Your task to perform on an android device: Search for Italian restaurants on Maps Image 0: 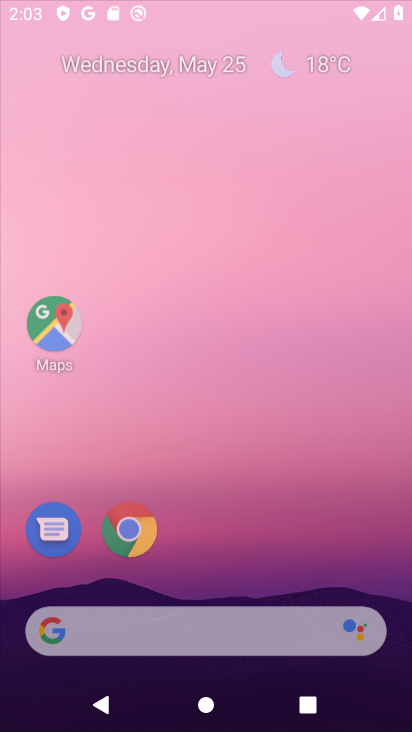
Step 0: click (405, 274)
Your task to perform on an android device: Search for Italian restaurants on Maps Image 1: 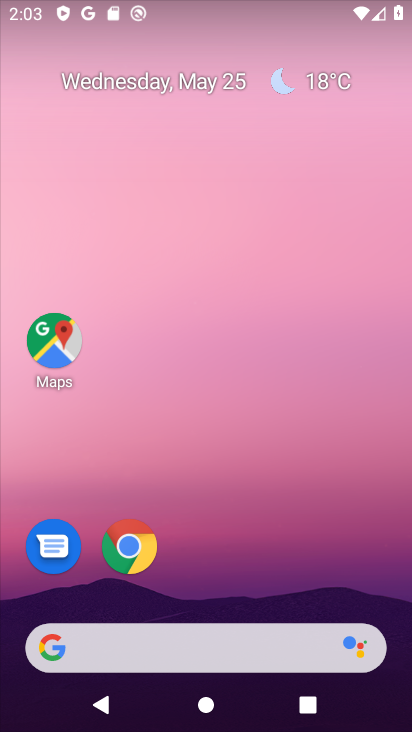
Step 1: drag from (229, 571) to (236, 0)
Your task to perform on an android device: Search for Italian restaurants on Maps Image 2: 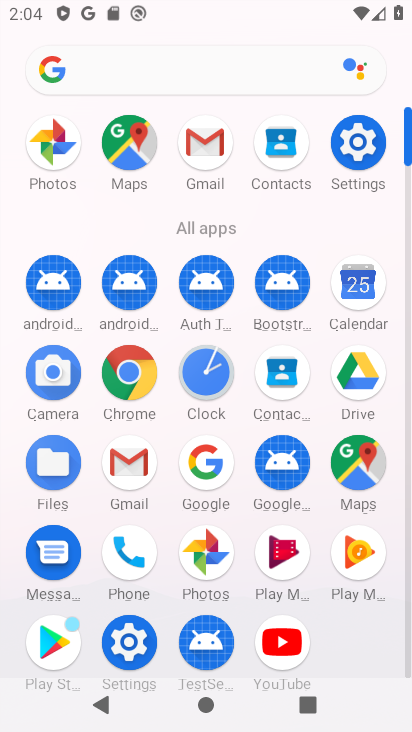
Step 2: click (365, 456)
Your task to perform on an android device: Search for Italian restaurants on Maps Image 3: 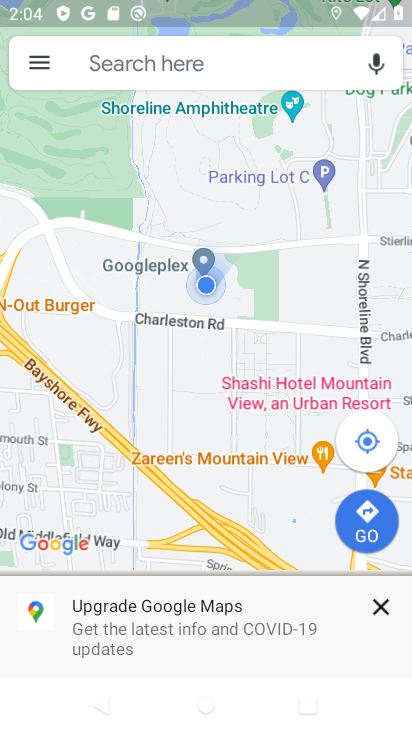
Step 3: click (156, 67)
Your task to perform on an android device: Search for Italian restaurants on Maps Image 4: 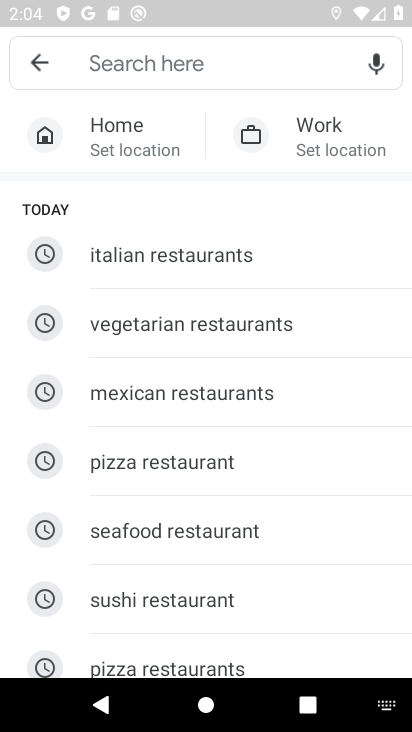
Step 4: type "italian restaurants"
Your task to perform on an android device: Search for Italian restaurants on Maps Image 5: 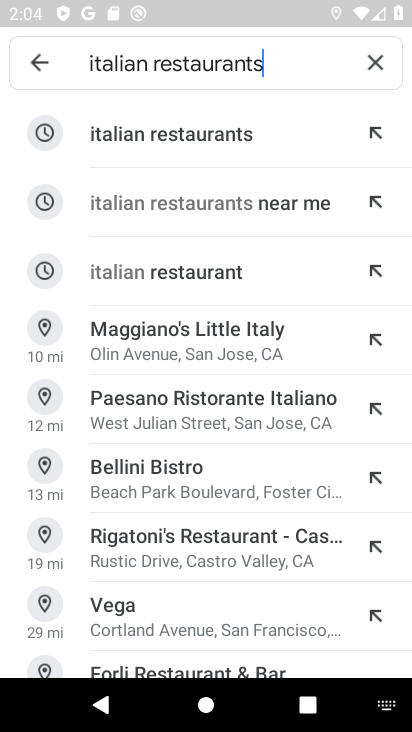
Step 5: click (163, 147)
Your task to perform on an android device: Search for Italian restaurants on Maps Image 6: 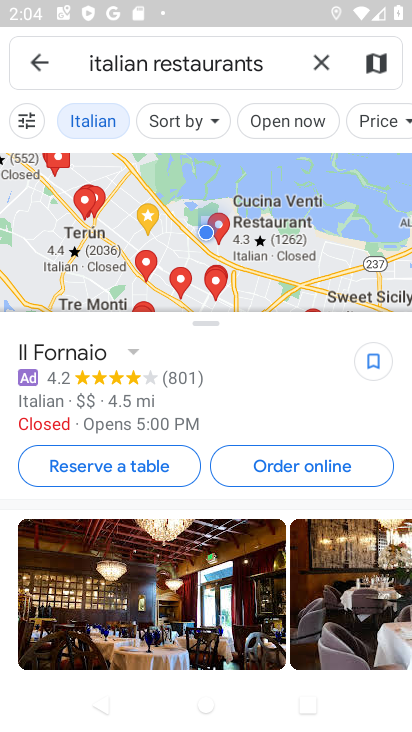
Step 6: task complete